Your task to perform on an android device: Who is the prime minister of Canada? Image 0: 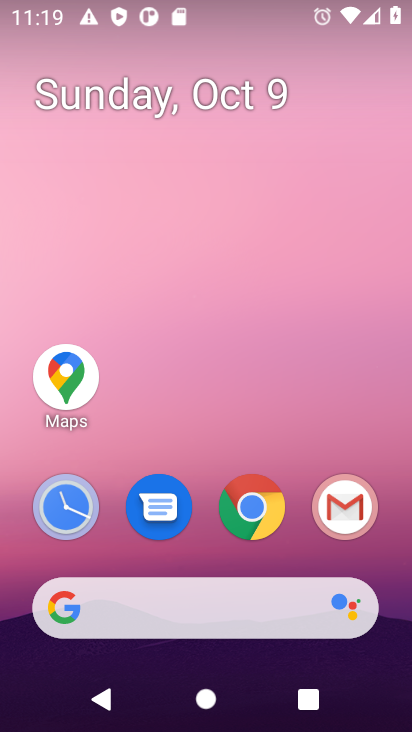
Step 0: click (286, 613)
Your task to perform on an android device: Who is the prime minister of Canada? Image 1: 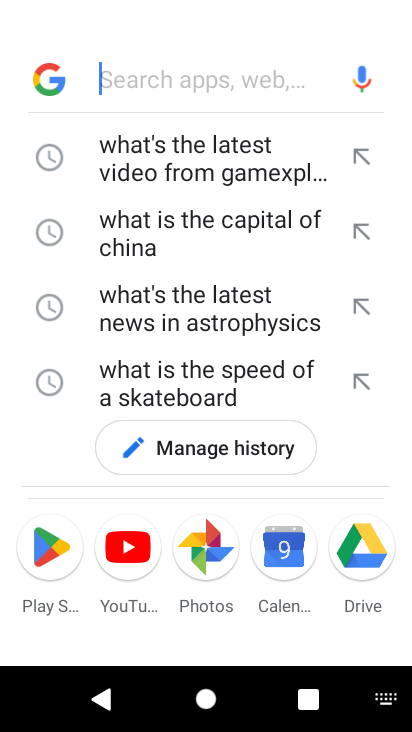
Step 1: type "Who is the prime minister of Canada"
Your task to perform on an android device: Who is the prime minister of Canada? Image 2: 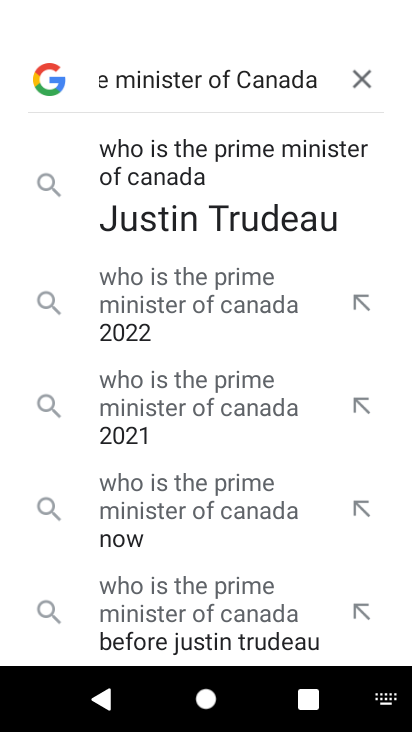
Step 2: press enter
Your task to perform on an android device: Who is the prime minister of Canada? Image 3: 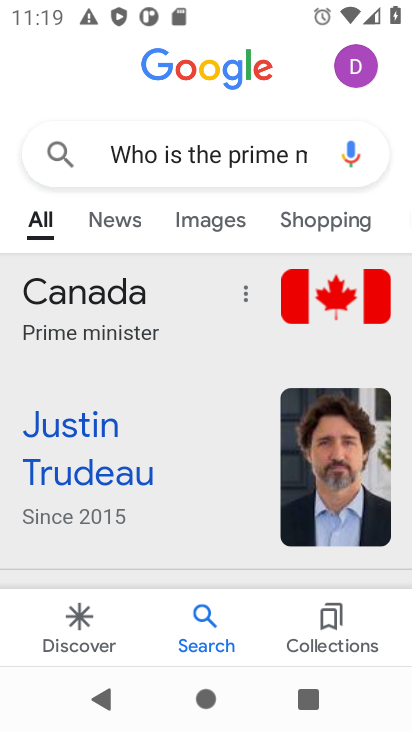
Step 3: task complete